Your task to perform on an android device: turn smart compose on in the gmail app Image 0: 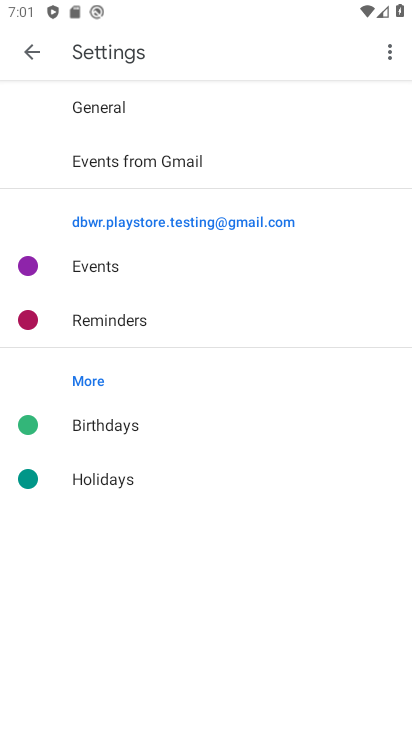
Step 0: press home button
Your task to perform on an android device: turn smart compose on in the gmail app Image 1: 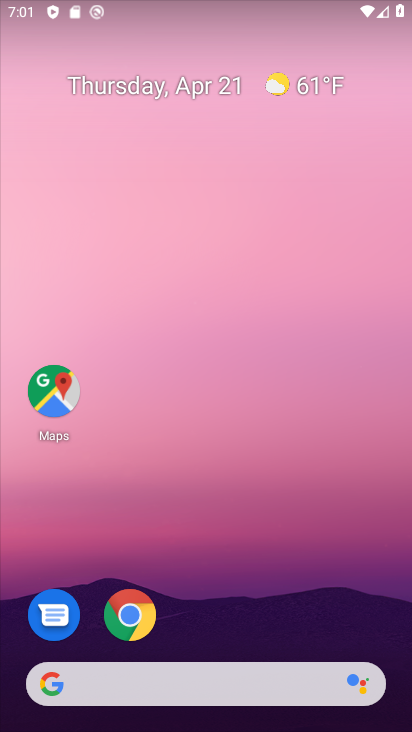
Step 1: drag from (195, 629) to (297, 142)
Your task to perform on an android device: turn smart compose on in the gmail app Image 2: 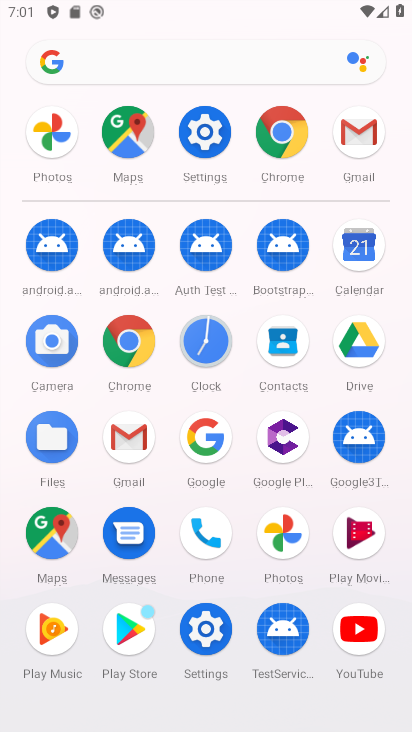
Step 2: click (128, 443)
Your task to perform on an android device: turn smart compose on in the gmail app Image 3: 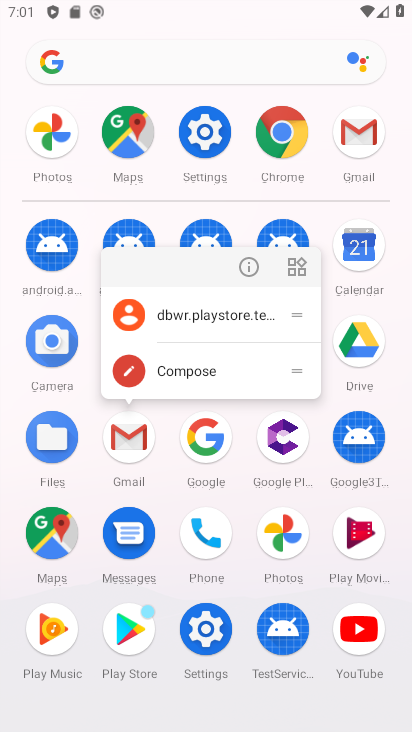
Step 3: click (261, 267)
Your task to perform on an android device: turn smart compose on in the gmail app Image 4: 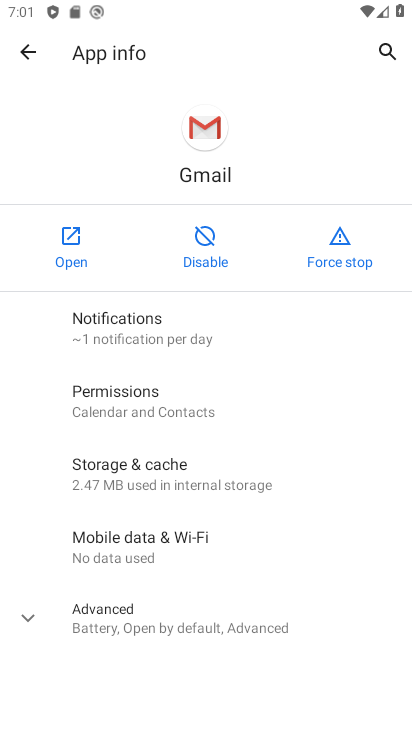
Step 4: click (68, 252)
Your task to perform on an android device: turn smart compose on in the gmail app Image 5: 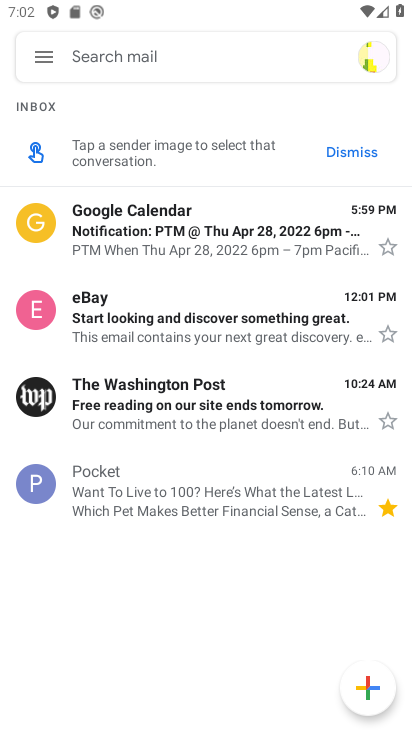
Step 5: click (48, 56)
Your task to perform on an android device: turn smart compose on in the gmail app Image 6: 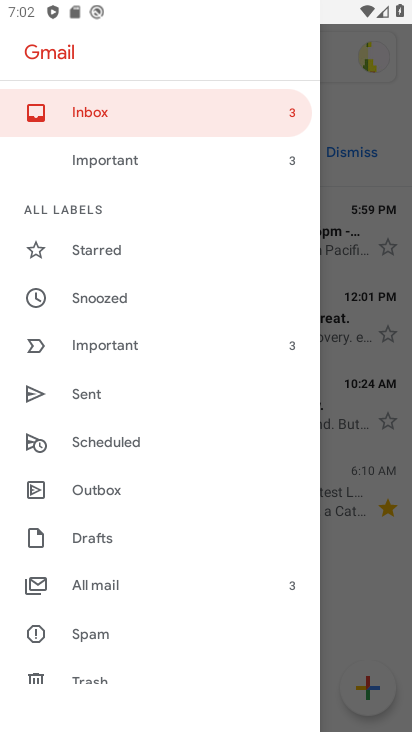
Step 6: drag from (141, 615) to (264, 106)
Your task to perform on an android device: turn smart compose on in the gmail app Image 7: 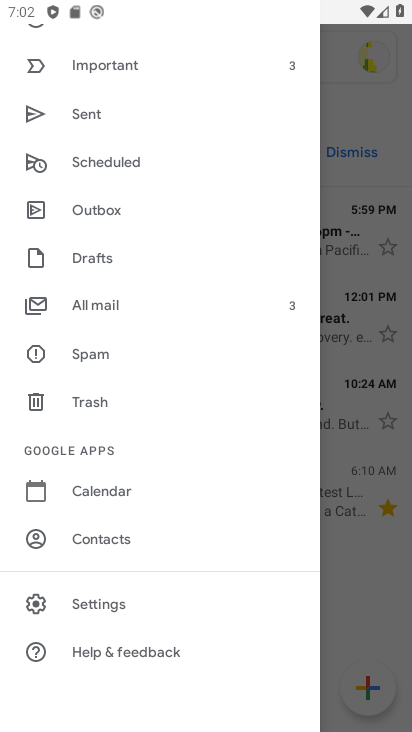
Step 7: click (100, 607)
Your task to perform on an android device: turn smart compose on in the gmail app Image 8: 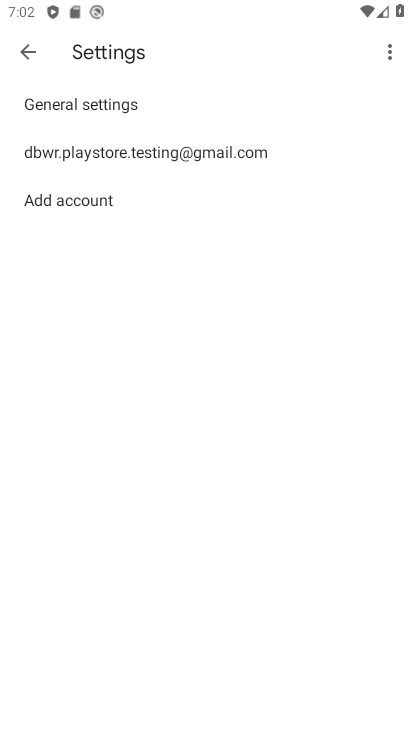
Step 8: click (257, 166)
Your task to perform on an android device: turn smart compose on in the gmail app Image 9: 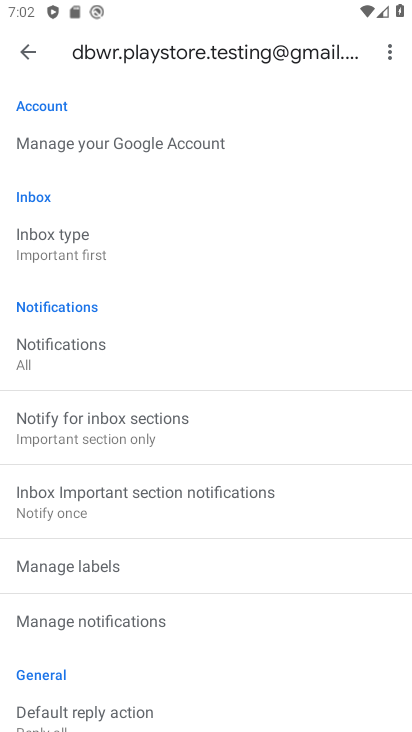
Step 9: task complete